Your task to perform on an android device: set an alarm Image 0: 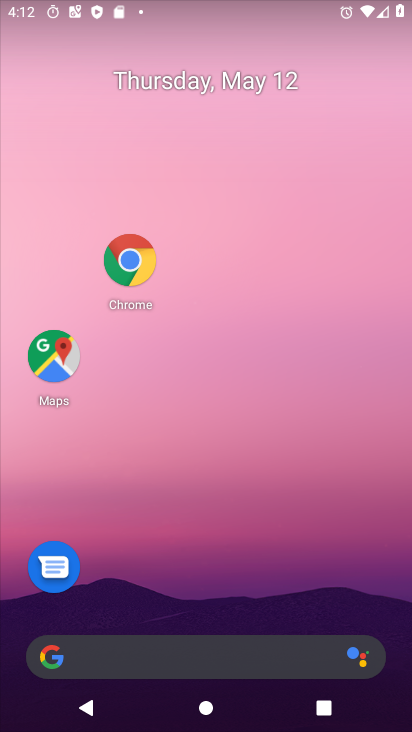
Step 0: drag from (184, 635) to (285, 206)
Your task to perform on an android device: set an alarm Image 1: 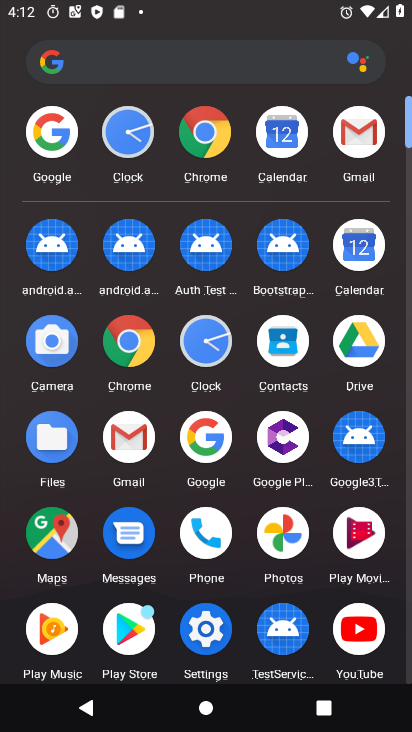
Step 1: click (208, 342)
Your task to perform on an android device: set an alarm Image 2: 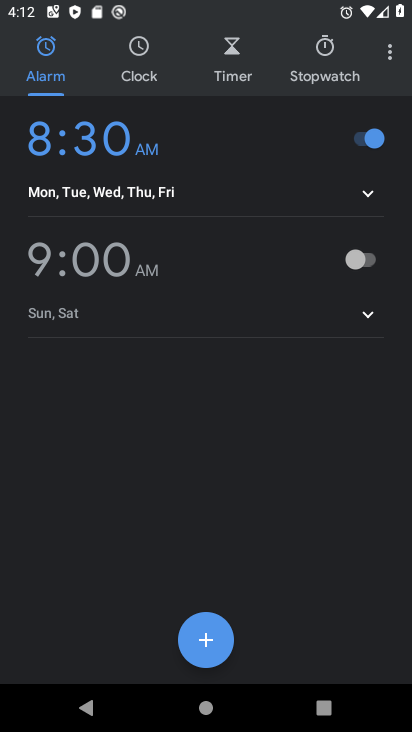
Step 2: click (214, 637)
Your task to perform on an android device: set an alarm Image 3: 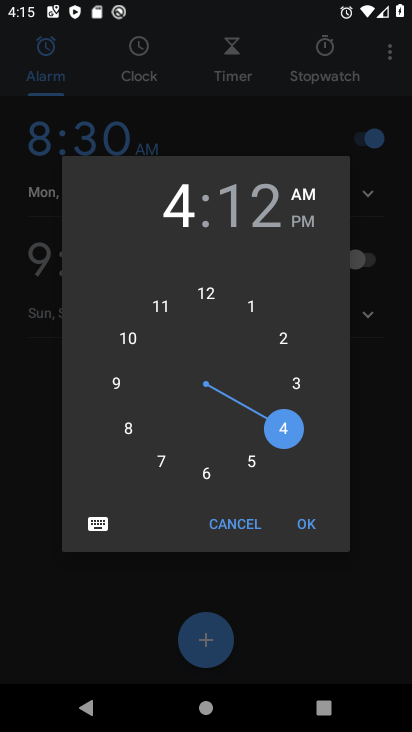
Step 3: click (212, 479)
Your task to perform on an android device: set an alarm Image 4: 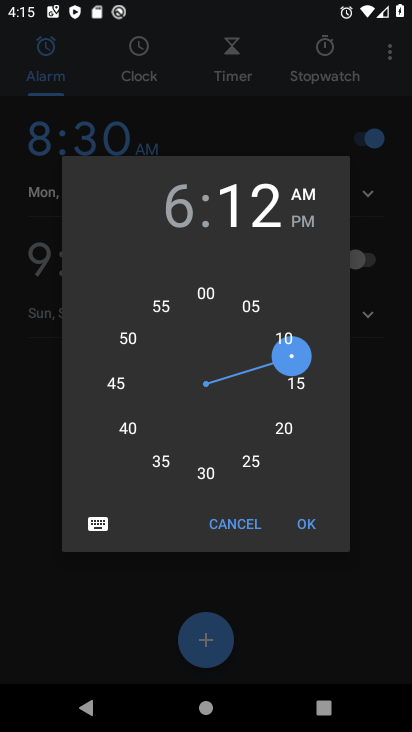
Step 4: click (201, 288)
Your task to perform on an android device: set an alarm Image 5: 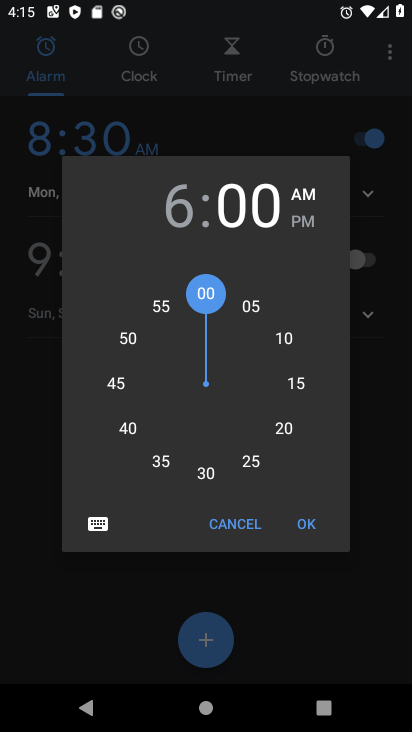
Step 5: click (128, 332)
Your task to perform on an android device: set an alarm Image 6: 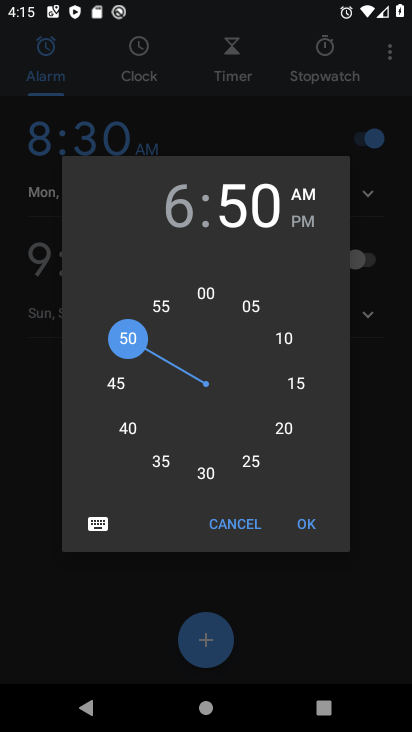
Step 6: click (249, 521)
Your task to perform on an android device: set an alarm Image 7: 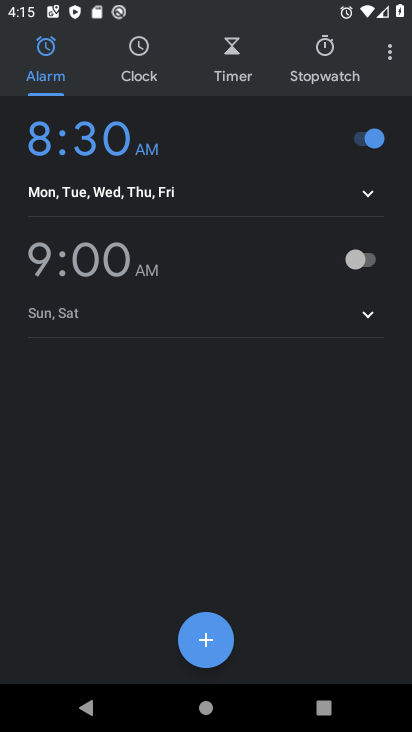
Step 7: task complete